Your task to perform on an android device: What's the weather? Image 0: 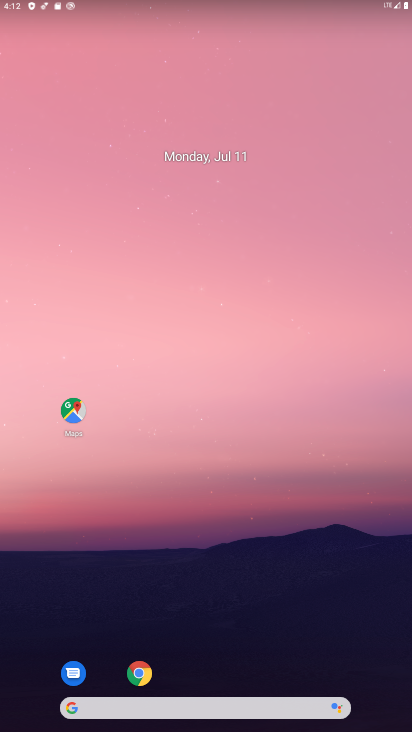
Step 0: drag from (316, 555) to (355, 3)
Your task to perform on an android device: What's the weather? Image 1: 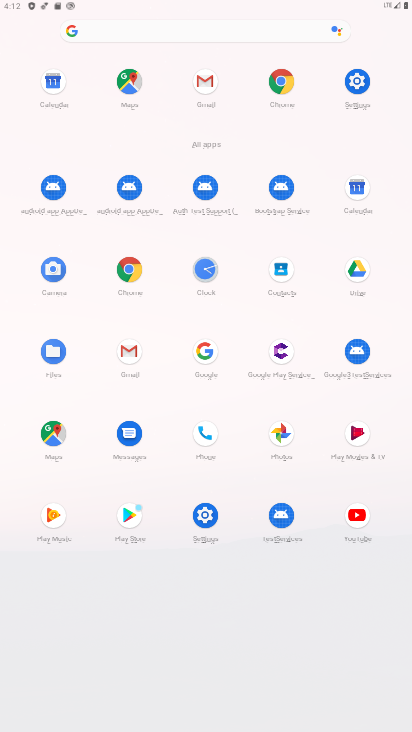
Step 1: click (284, 74)
Your task to perform on an android device: What's the weather? Image 2: 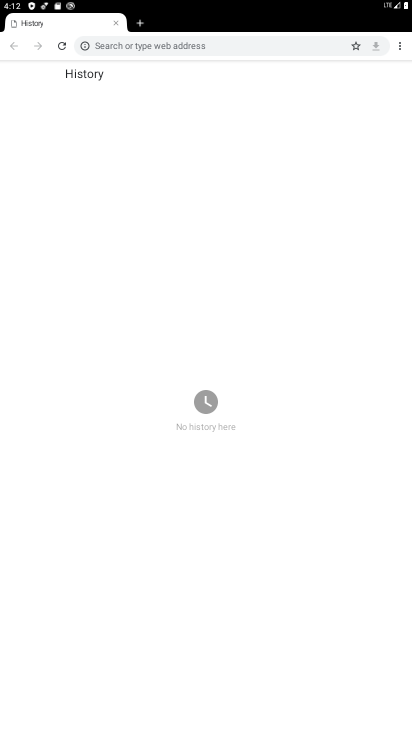
Step 2: click (257, 42)
Your task to perform on an android device: What's the weather? Image 3: 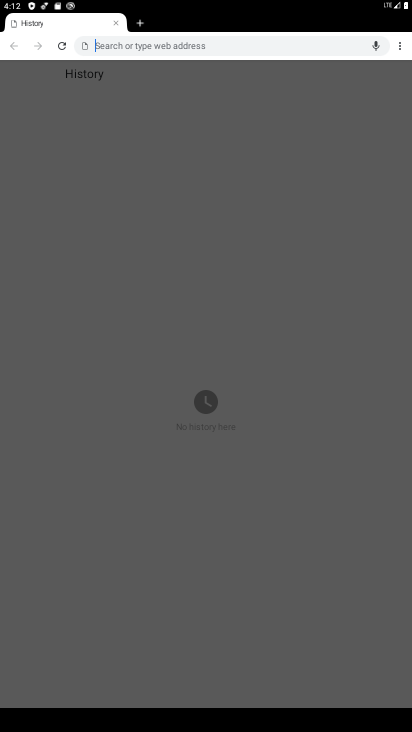
Step 3: type "weather"
Your task to perform on an android device: What's the weather? Image 4: 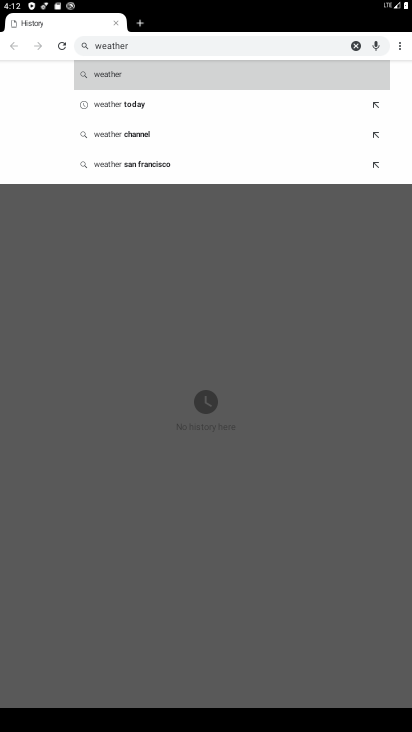
Step 4: click (182, 70)
Your task to perform on an android device: What's the weather? Image 5: 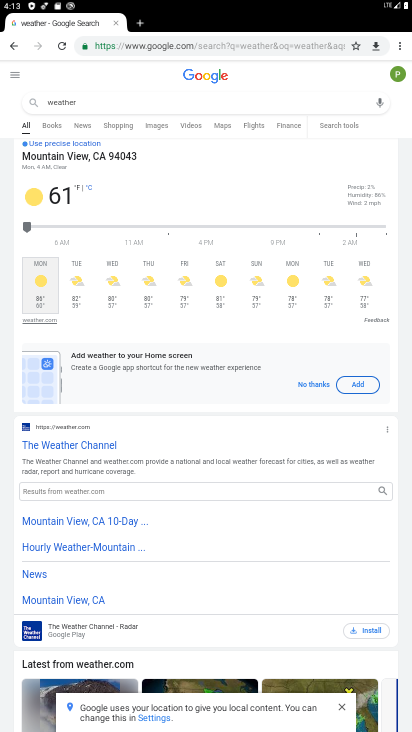
Step 5: task complete